Your task to perform on an android device: What's the weather today? Image 0: 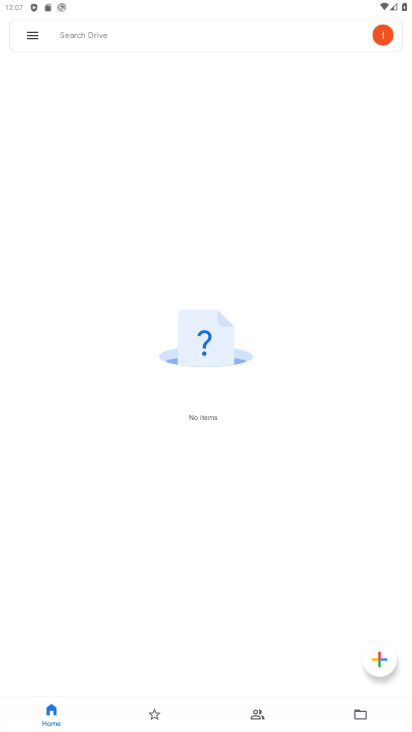
Step 0: press home button
Your task to perform on an android device: What's the weather today? Image 1: 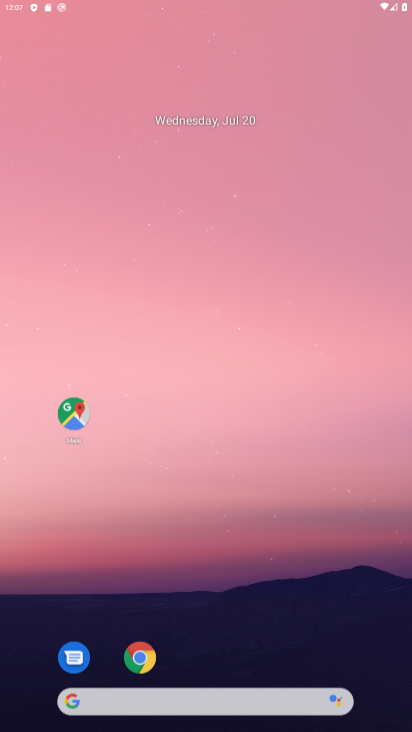
Step 1: drag from (365, 632) to (223, 49)
Your task to perform on an android device: What's the weather today? Image 2: 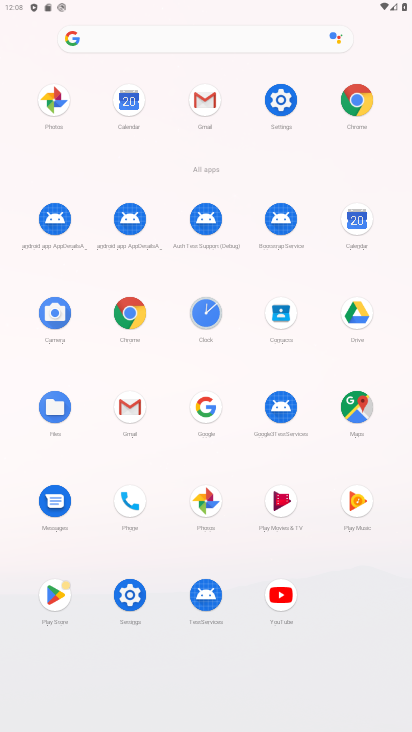
Step 2: click (204, 409)
Your task to perform on an android device: What's the weather today? Image 3: 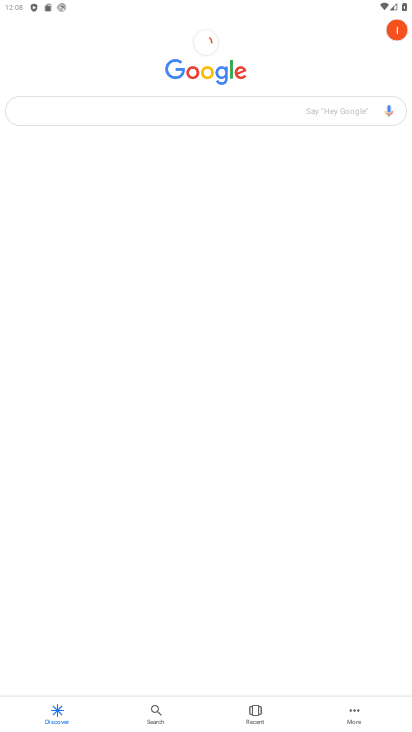
Step 3: click (123, 105)
Your task to perform on an android device: What's the weather today? Image 4: 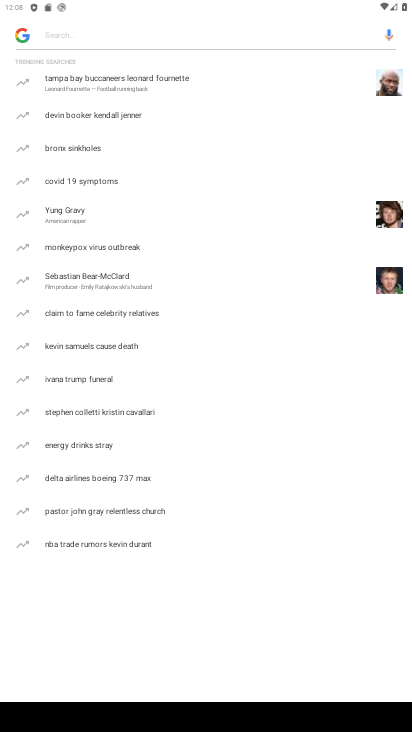
Step 4: type "What's the weather today?"
Your task to perform on an android device: What's the weather today? Image 5: 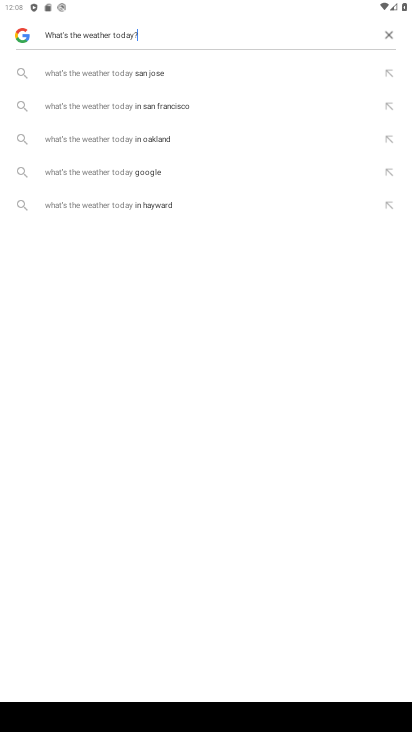
Step 5: click (134, 175)
Your task to perform on an android device: What's the weather today? Image 6: 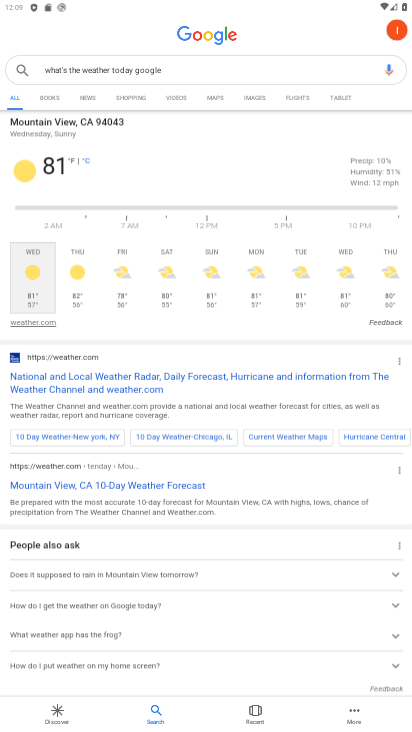
Step 6: task complete